Your task to perform on an android device: open a bookmark in the chrome app Image 0: 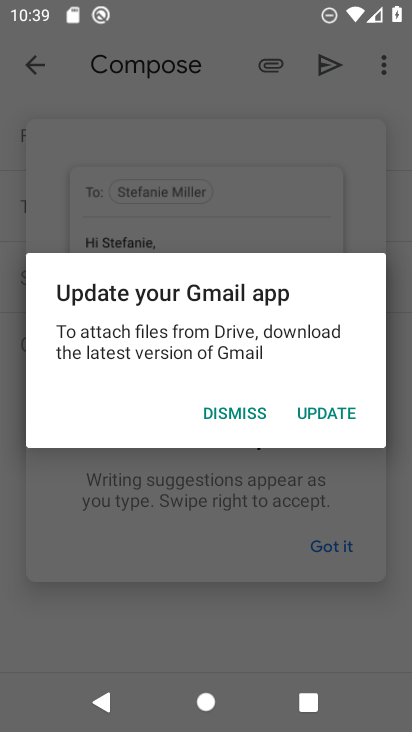
Step 0: press home button
Your task to perform on an android device: open a bookmark in the chrome app Image 1: 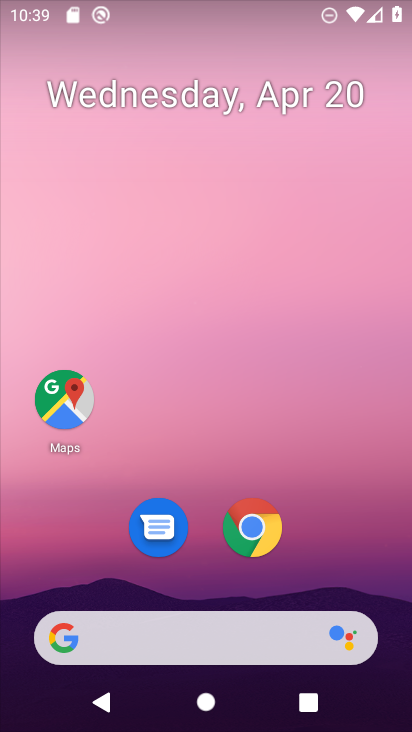
Step 1: click (240, 526)
Your task to perform on an android device: open a bookmark in the chrome app Image 2: 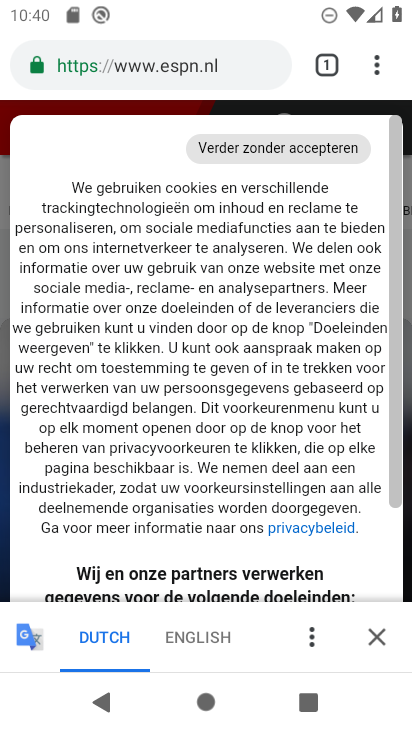
Step 2: click (378, 631)
Your task to perform on an android device: open a bookmark in the chrome app Image 3: 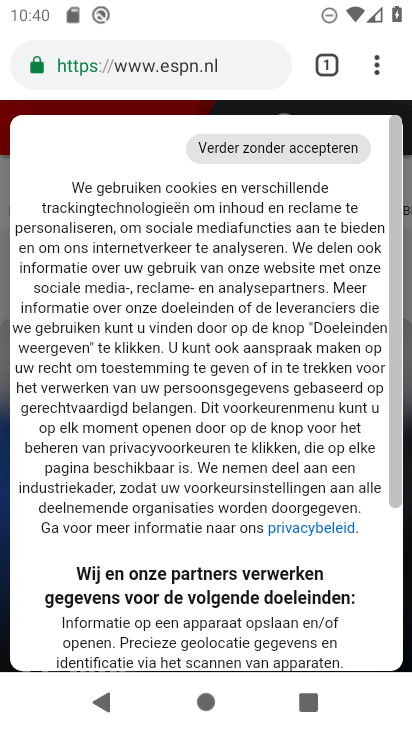
Step 3: click (379, 70)
Your task to perform on an android device: open a bookmark in the chrome app Image 4: 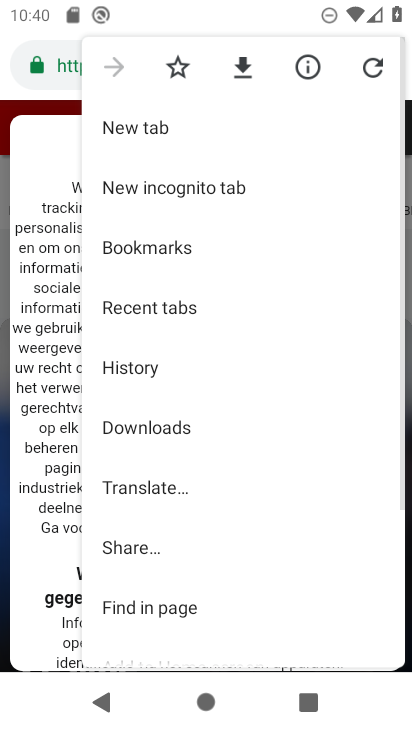
Step 4: click (153, 129)
Your task to perform on an android device: open a bookmark in the chrome app Image 5: 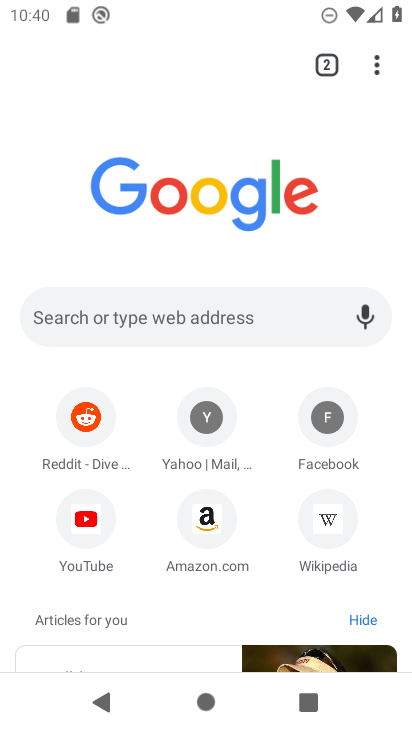
Step 5: click (89, 451)
Your task to perform on an android device: open a bookmark in the chrome app Image 6: 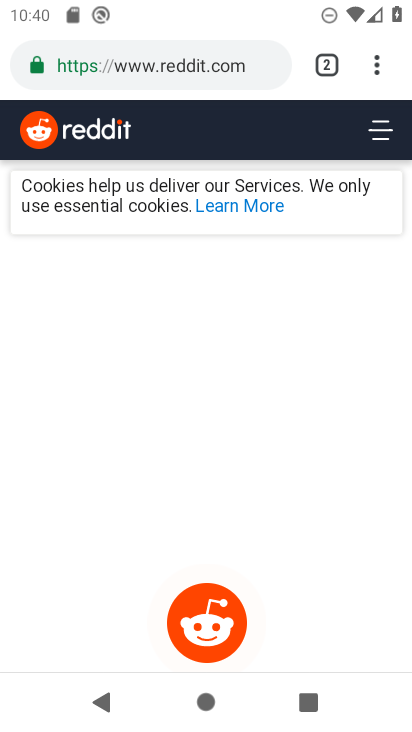
Step 6: task complete